Your task to perform on an android device: turn off notifications settings in the gmail app Image 0: 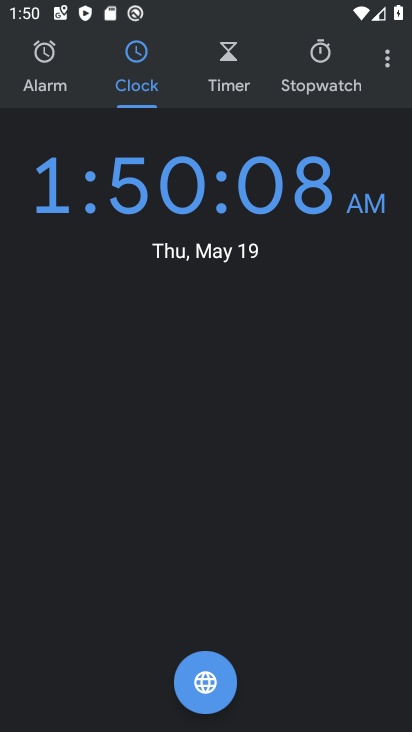
Step 0: press home button
Your task to perform on an android device: turn off notifications settings in the gmail app Image 1: 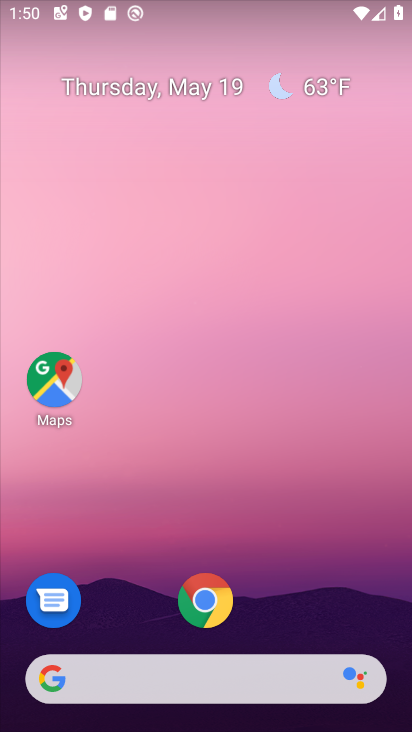
Step 1: drag from (315, 549) to (324, 222)
Your task to perform on an android device: turn off notifications settings in the gmail app Image 2: 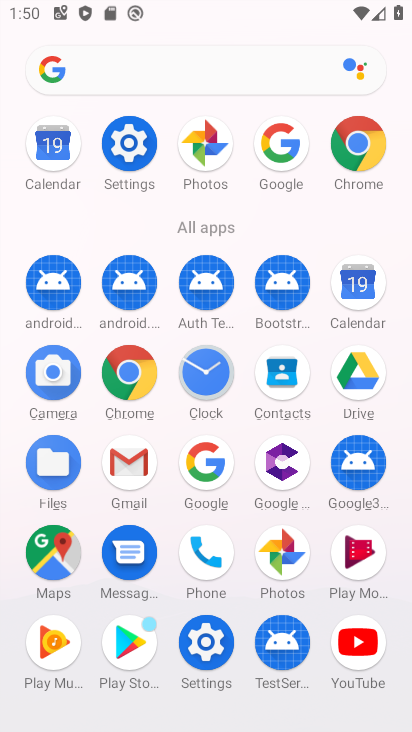
Step 2: click (126, 474)
Your task to perform on an android device: turn off notifications settings in the gmail app Image 3: 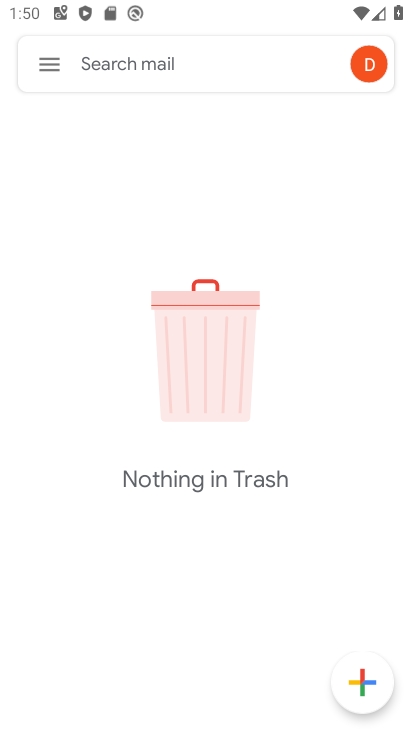
Step 3: click (43, 55)
Your task to perform on an android device: turn off notifications settings in the gmail app Image 4: 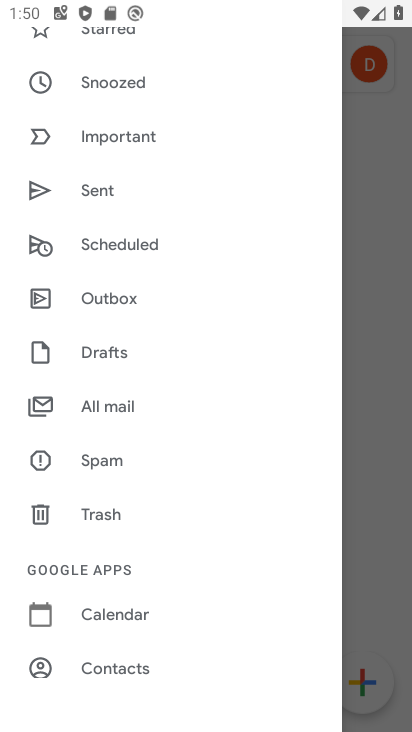
Step 4: drag from (124, 609) to (88, 352)
Your task to perform on an android device: turn off notifications settings in the gmail app Image 5: 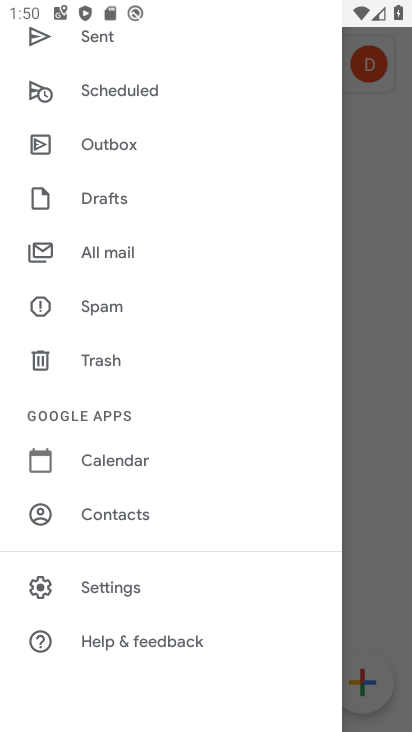
Step 5: click (92, 605)
Your task to perform on an android device: turn off notifications settings in the gmail app Image 6: 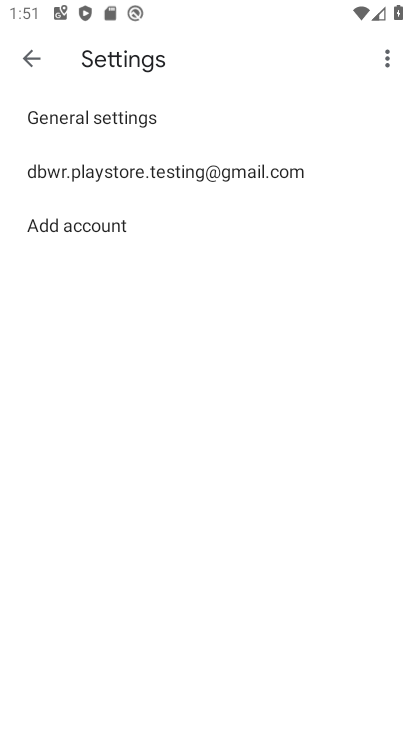
Step 6: click (123, 175)
Your task to perform on an android device: turn off notifications settings in the gmail app Image 7: 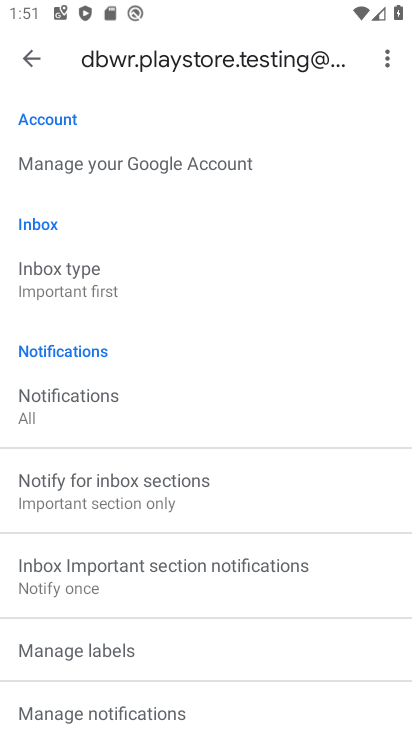
Step 7: drag from (158, 531) to (132, 254)
Your task to perform on an android device: turn off notifications settings in the gmail app Image 8: 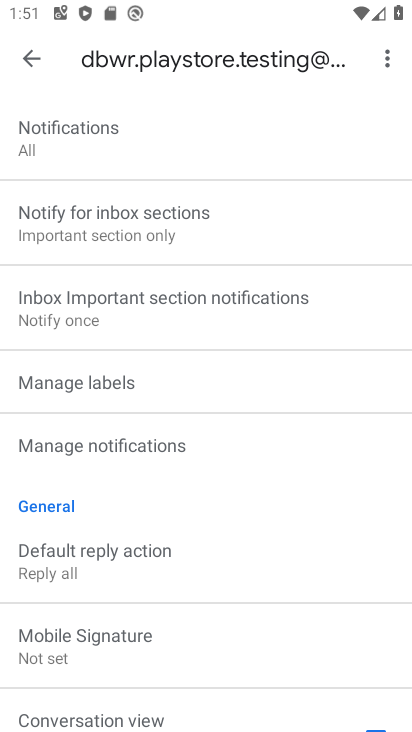
Step 8: click (118, 456)
Your task to perform on an android device: turn off notifications settings in the gmail app Image 9: 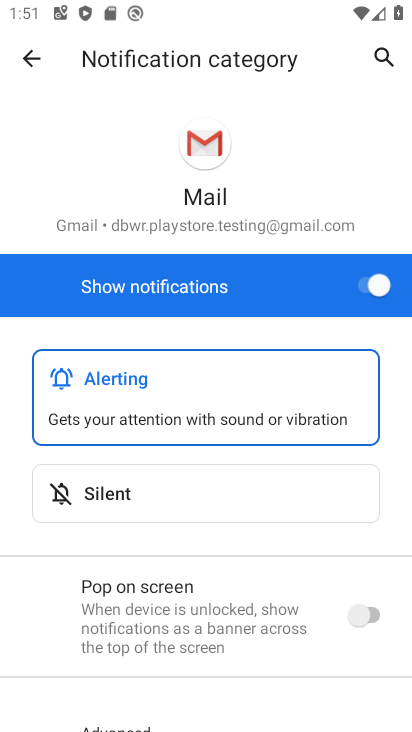
Step 9: click (366, 288)
Your task to perform on an android device: turn off notifications settings in the gmail app Image 10: 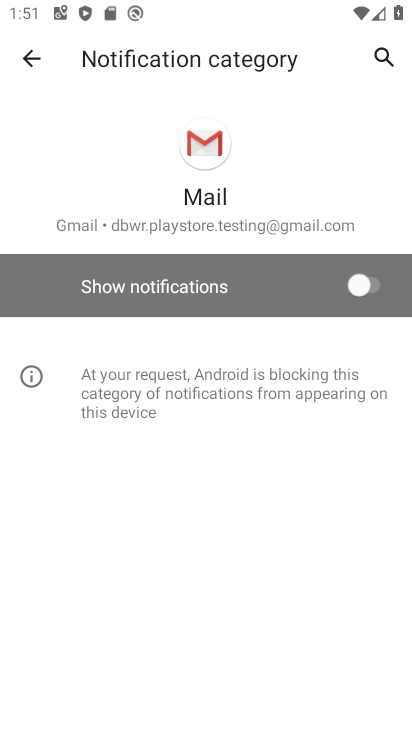
Step 10: task complete